Your task to perform on an android device: Open calendar and show me the second week of next month Image 0: 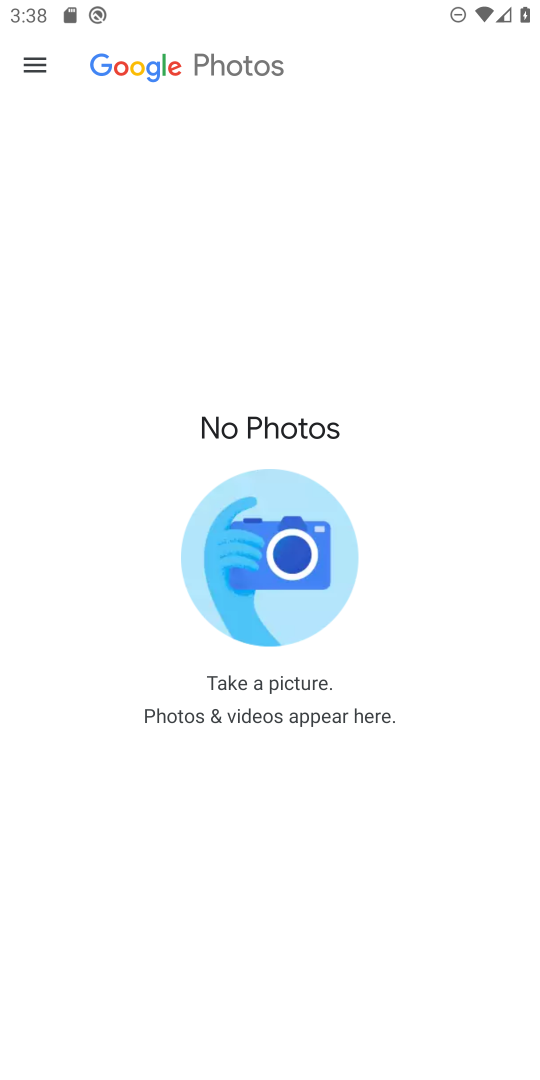
Step 0: press home button
Your task to perform on an android device: Open calendar and show me the second week of next month Image 1: 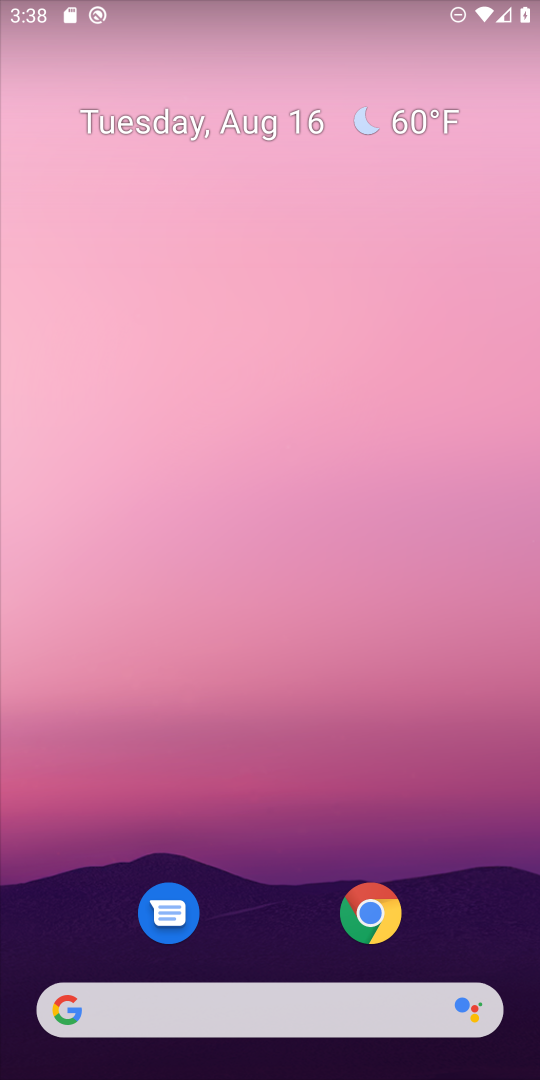
Step 1: drag from (488, 897) to (475, 254)
Your task to perform on an android device: Open calendar and show me the second week of next month Image 2: 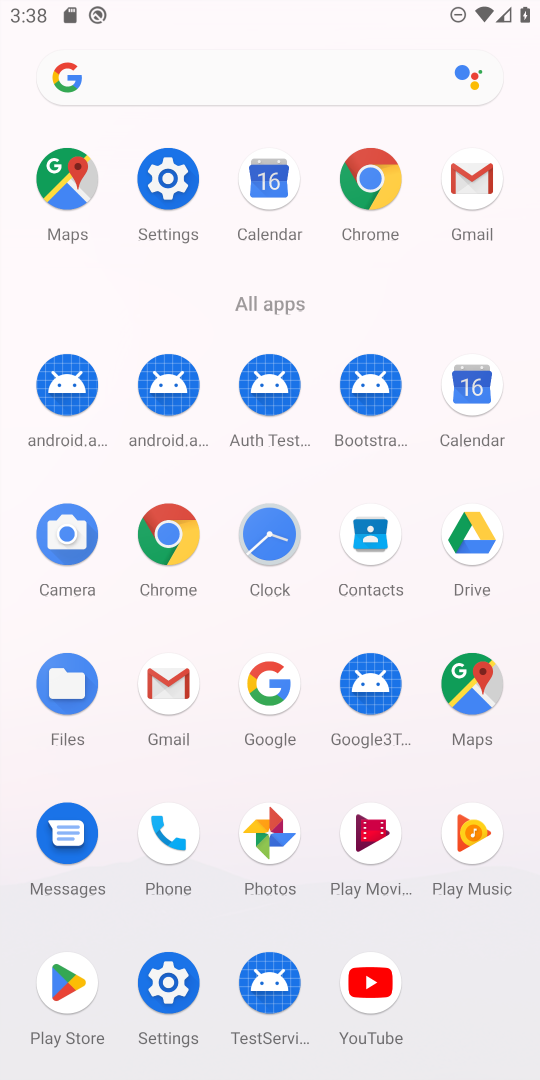
Step 2: click (469, 387)
Your task to perform on an android device: Open calendar and show me the second week of next month Image 3: 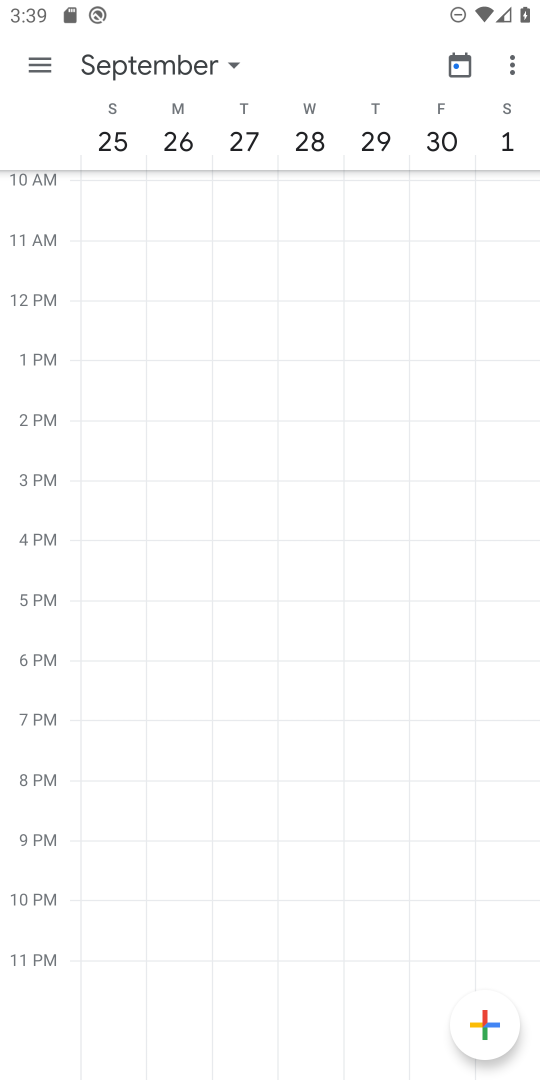
Step 3: click (234, 64)
Your task to perform on an android device: Open calendar and show me the second week of next month Image 4: 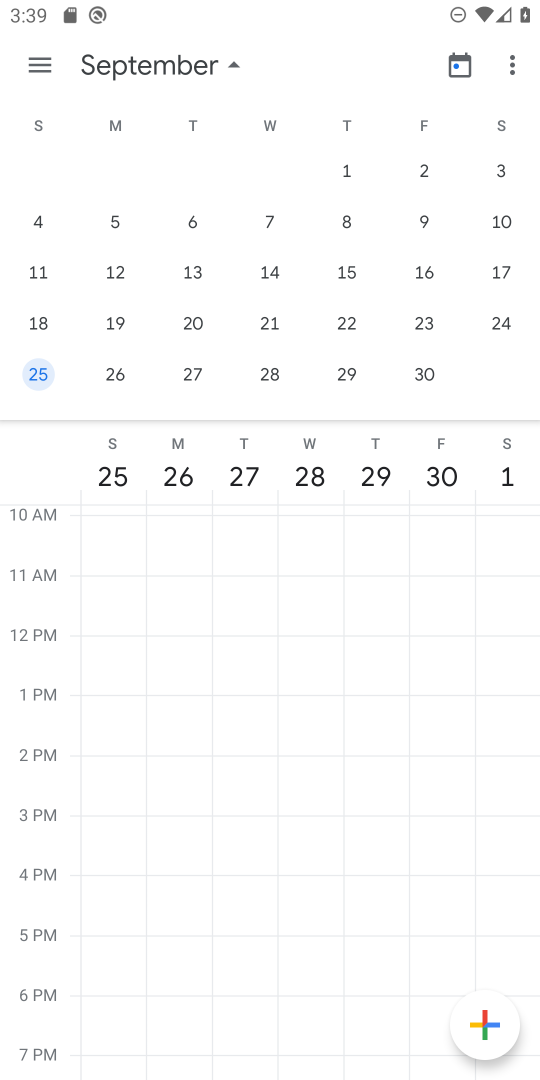
Step 4: click (31, 265)
Your task to perform on an android device: Open calendar and show me the second week of next month Image 5: 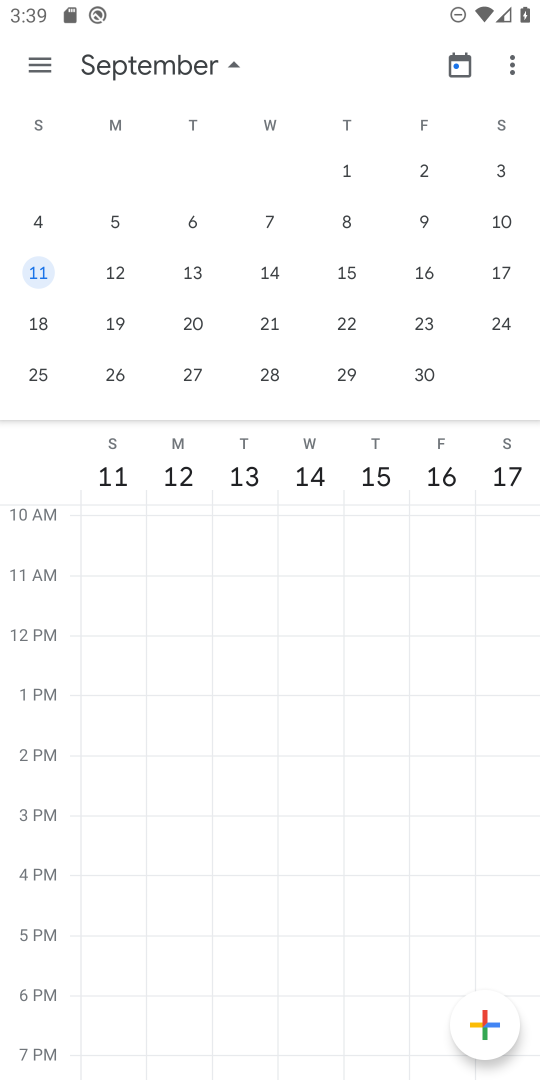
Step 5: task complete